Your task to perform on an android device: toggle sleep mode Image 0: 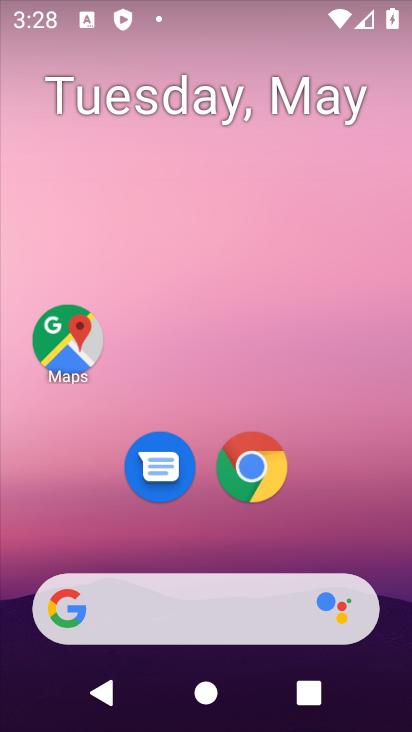
Step 0: drag from (329, 540) to (372, 1)
Your task to perform on an android device: toggle sleep mode Image 1: 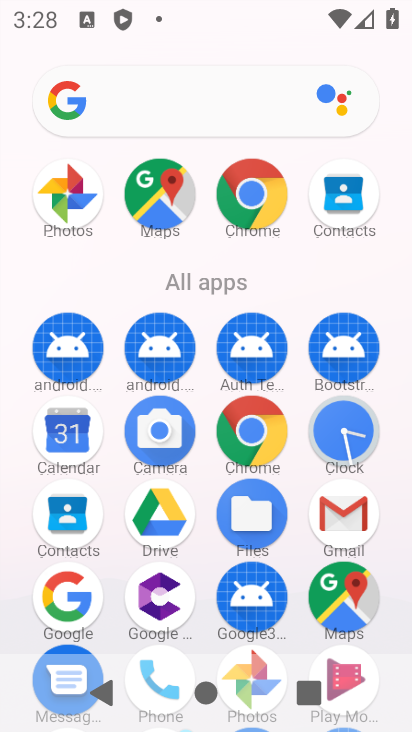
Step 1: task complete